Your task to perform on an android device: Show me the alarms in the clock app Image 0: 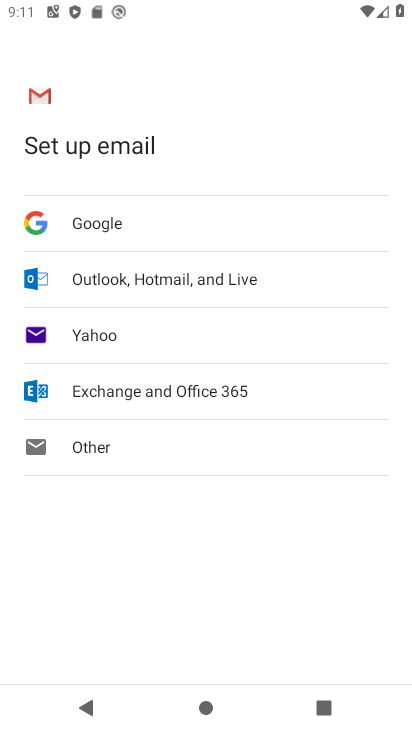
Step 0: press home button
Your task to perform on an android device: Show me the alarms in the clock app Image 1: 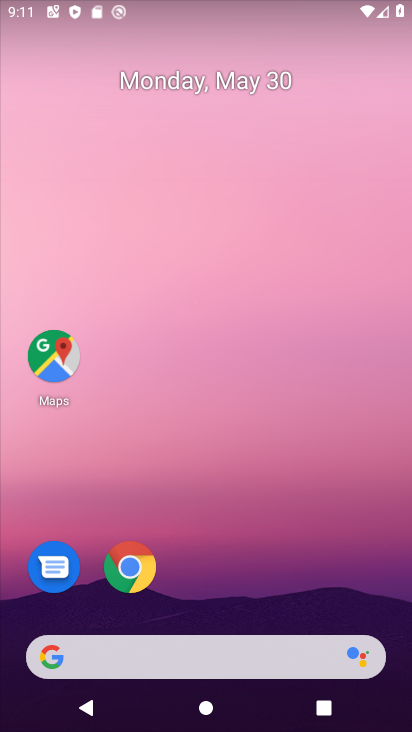
Step 1: drag from (199, 599) to (232, 100)
Your task to perform on an android device: Show me the alarms in the clock app Image 2: 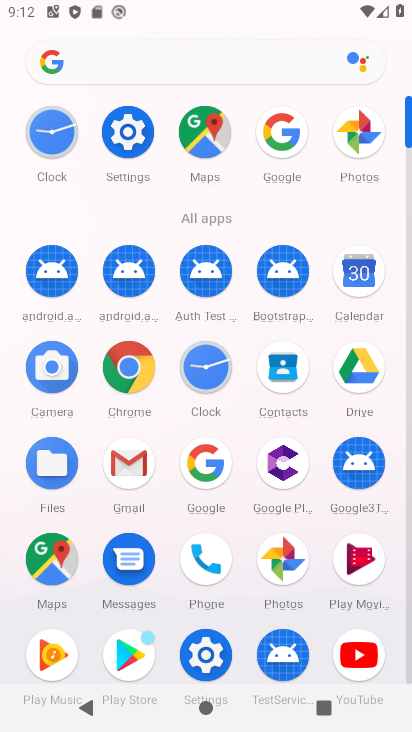
Step 2: click (204, 349)
Your task to perform on an android device: Show me the alarms in the clock app Image 3: 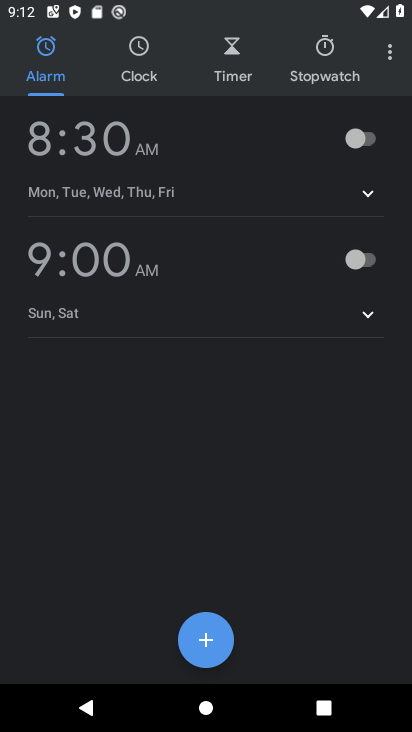
Step 3: task complete